Your task to perform on an android device: Open Reddit.com Image 0: 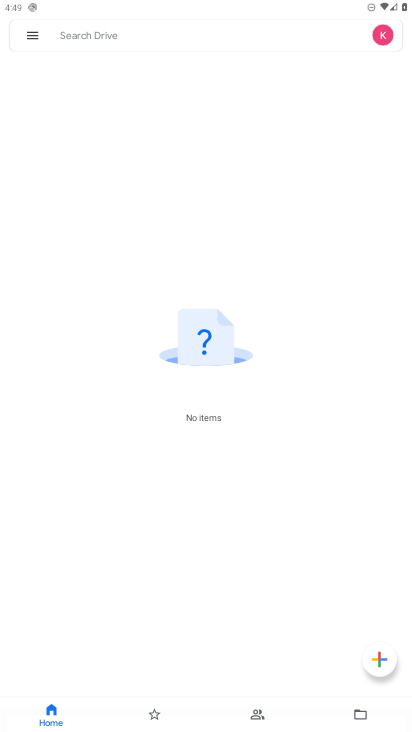
Step 0: press home button
Your task to perform on an android device: Open Reddit.com Image 1: 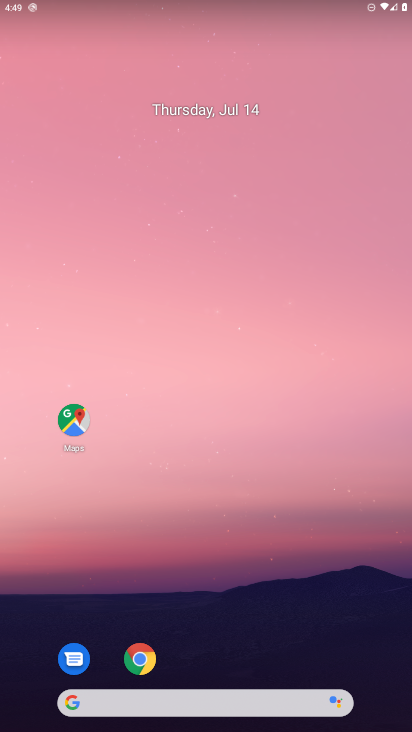
Step 1: click (141, 655)
Your task to perform on an android device: Open Reddit.com Image 2: 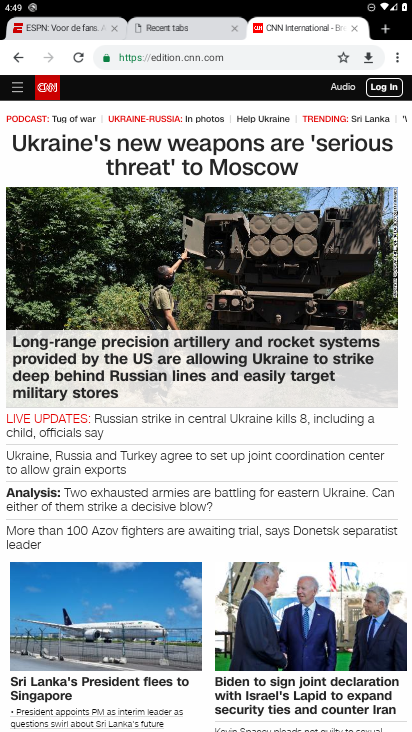
Step 2: click (230, 25)
Your task to perform on an android device: Open Reddit.com Image 3: 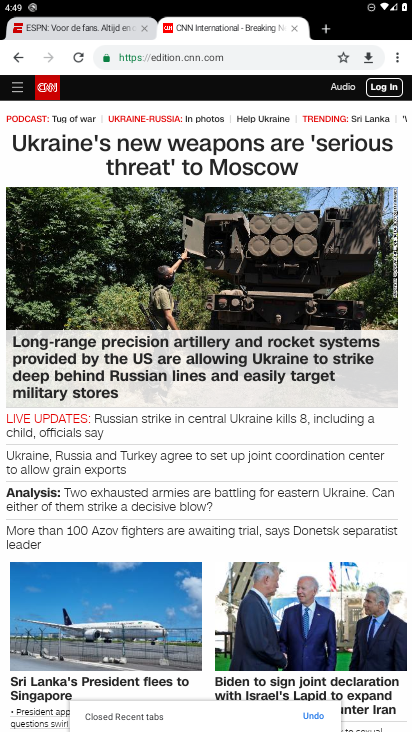
Step 3: click (324, 28)
Your task to perform on an android device: Open Reddit.com Image 4: 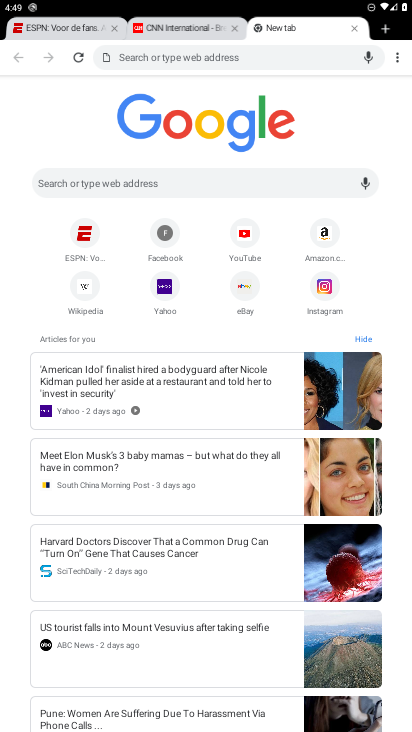
Step 4: click (128, 175)
Your task to perform on an android device: Open Reddit.com Image 5: 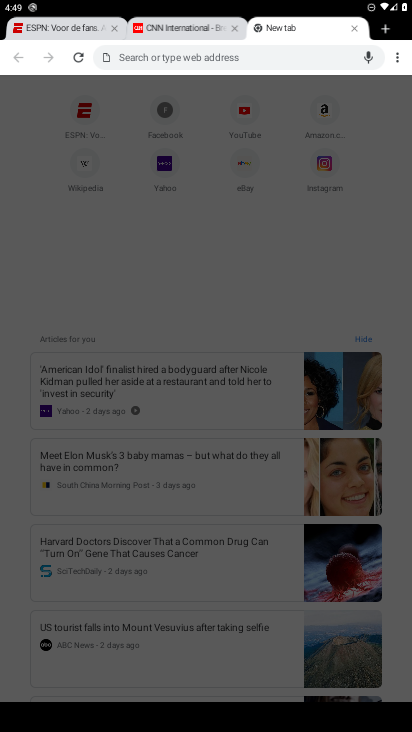
Step 5: type "reddit.com"
Your task to perform on an android device: Open Reddit.com Image 6: 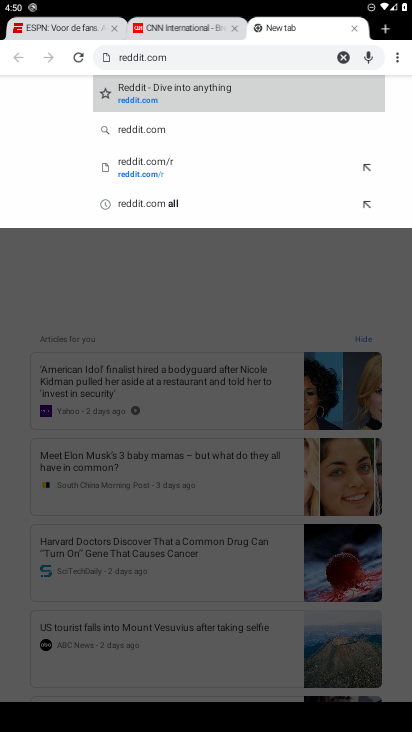
Step 6: click (166, 95)
Your task to perform on an android device: Open Reddit.com Image 7: 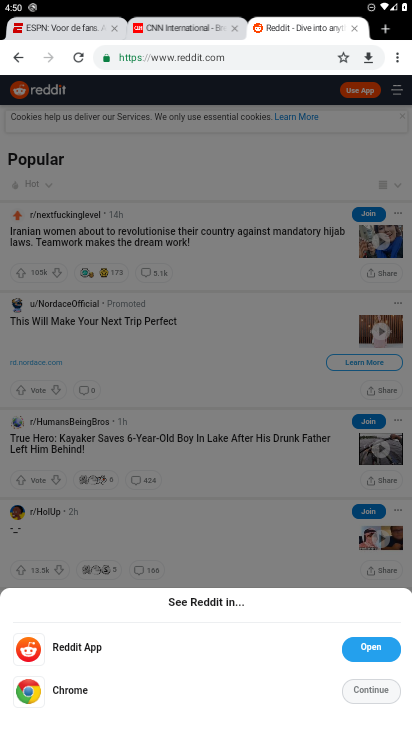
Step 7: click (365, 689)
Your task to perform on an android device: Open Reddit.com Image 8: 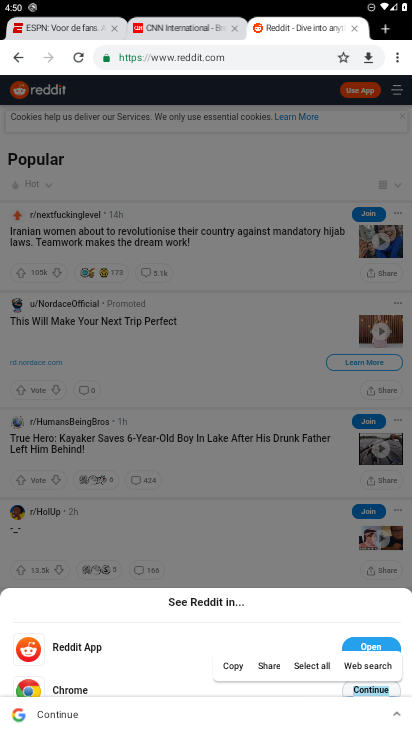
Step 8: click (356, 692)
Your task to perform on an android device: Open Reddit.com Image 9: 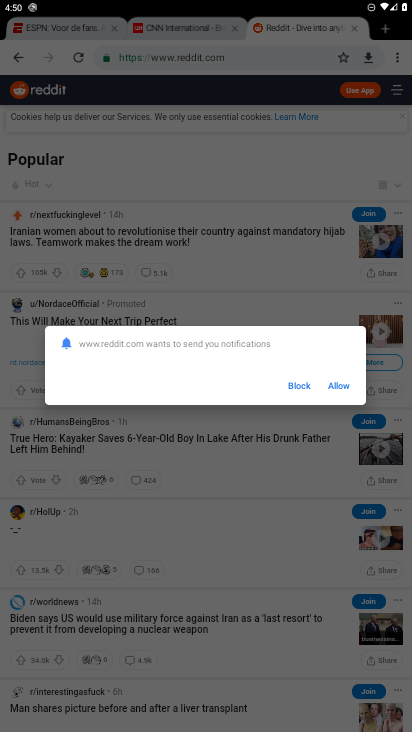
Step 9: drag from (221, 577) to (250, 310)
Your task to perform on an android device: Open Reddit.com Image 10: 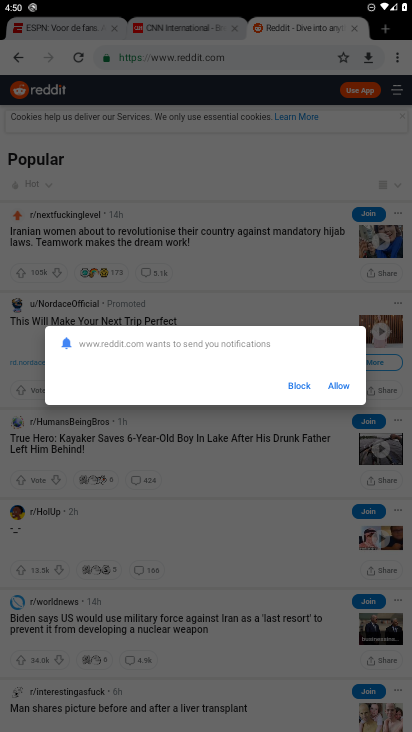
Step 10: click (294, 383)
Your task to perform on an android device: Open Reddit.com Image 11: 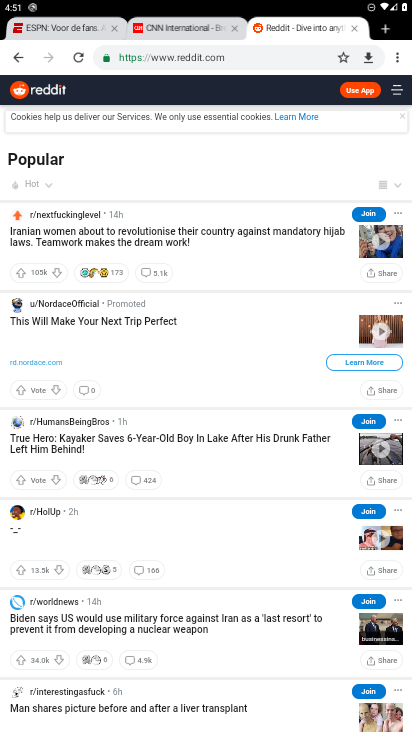
Step 11: task complete